Your task to perform on an android device: uninstall "Pinterest" Image 0: 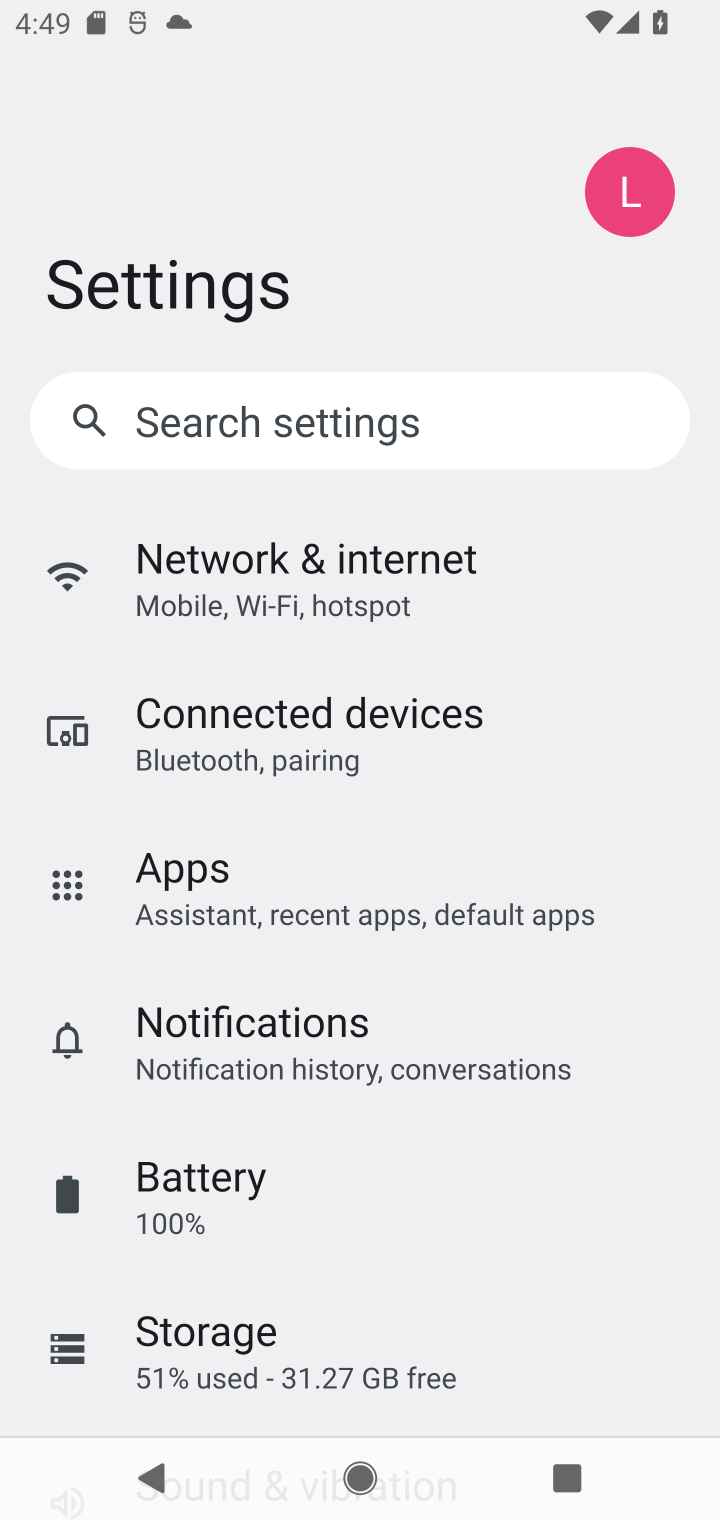
Step 0: press home button
Your task to perform on an android device: uninstall "Pinterest" Image 1: 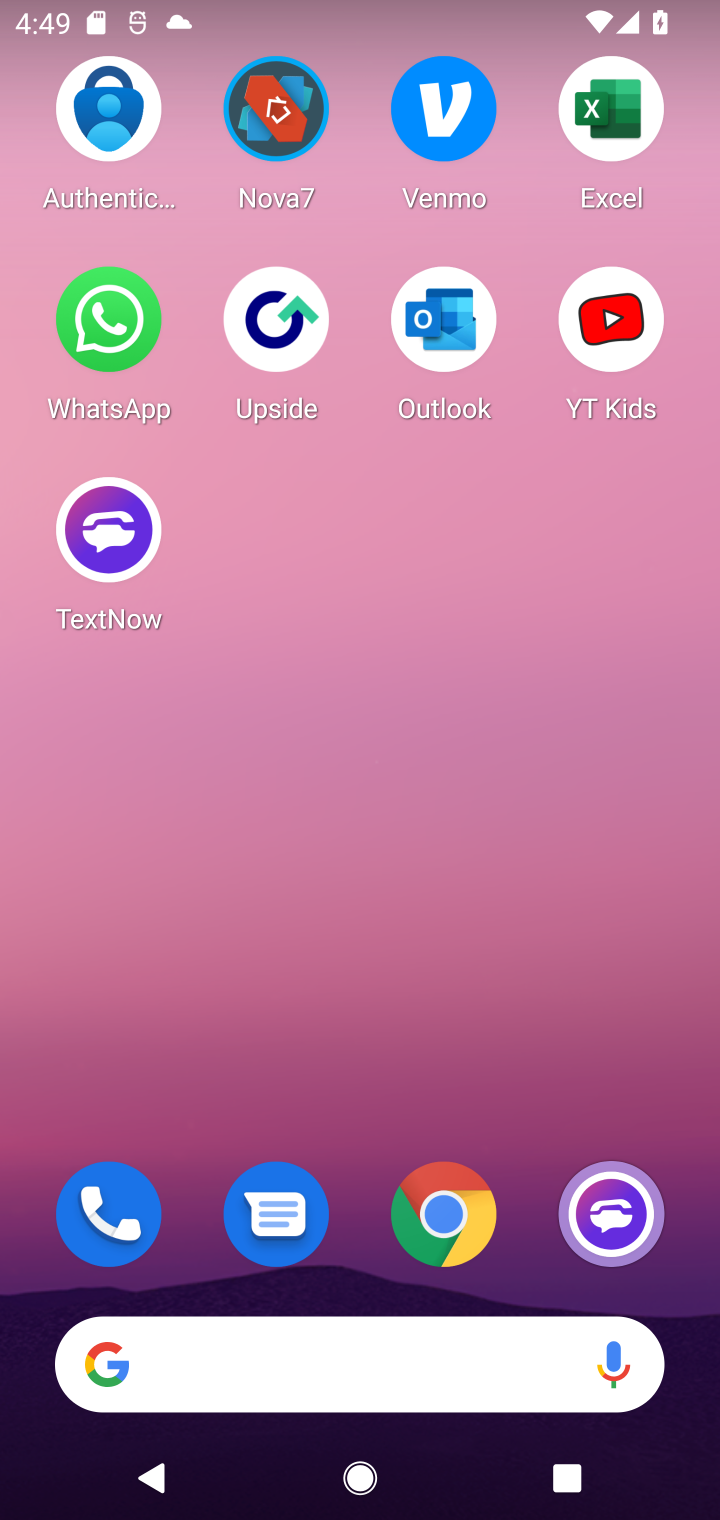
Step 1: drag from (361, 1159) to (347, 237)
Your task to perform on an android device: uninstall "Pinterest" Image 2: 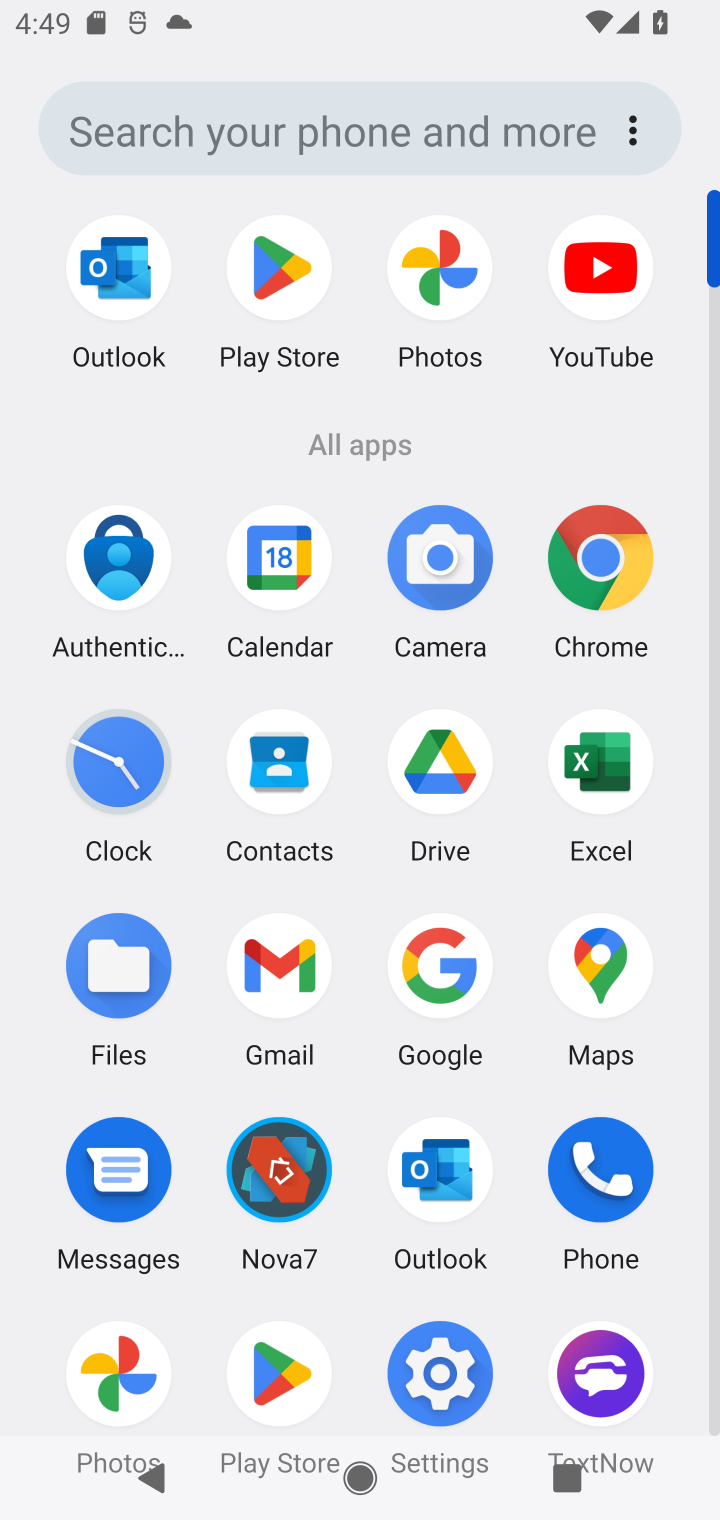
Step 2: click (281, 305)
Your task to perform on an android device: uninstall "Pinterest" Image 3: 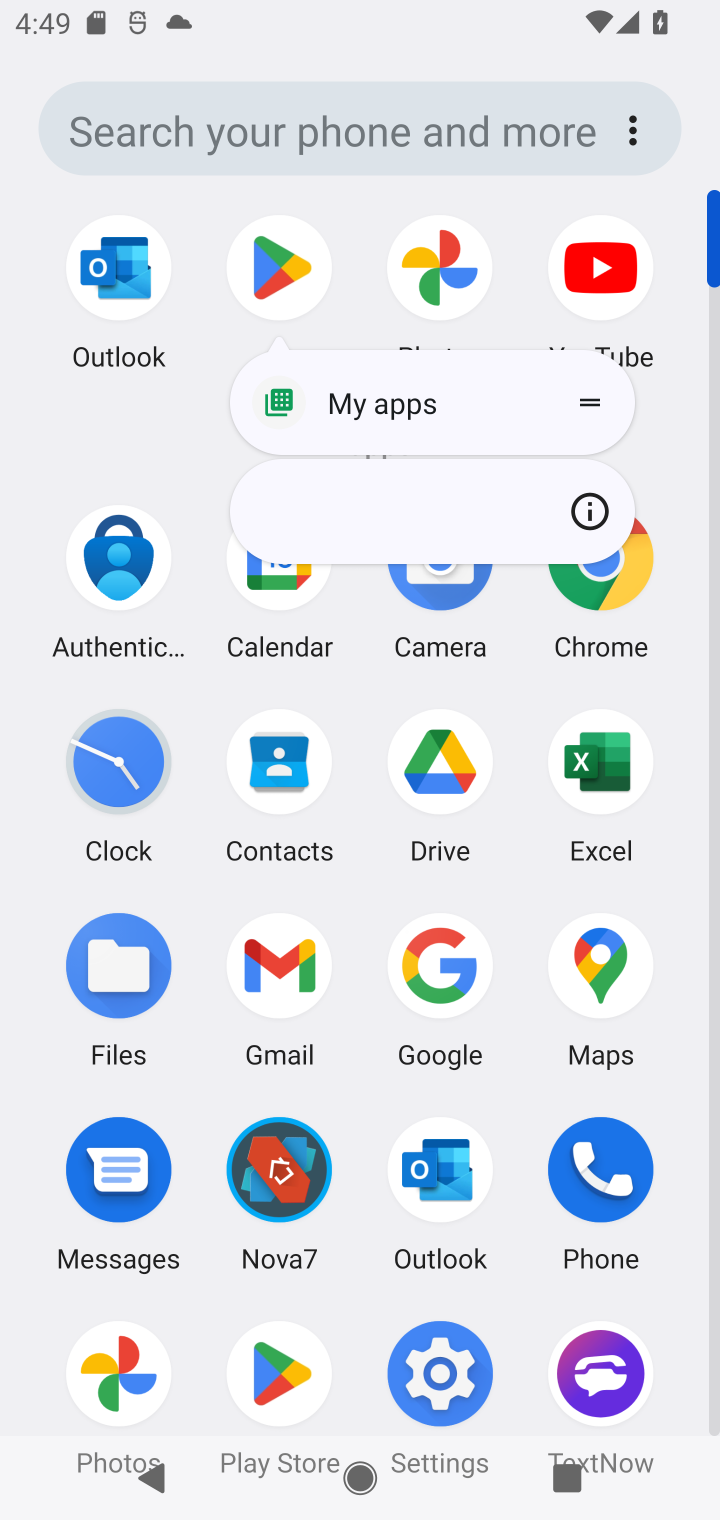
Step 3: click (283, 303)
Your task to perform on an android device: uninstall "Pinterest" Image 4: 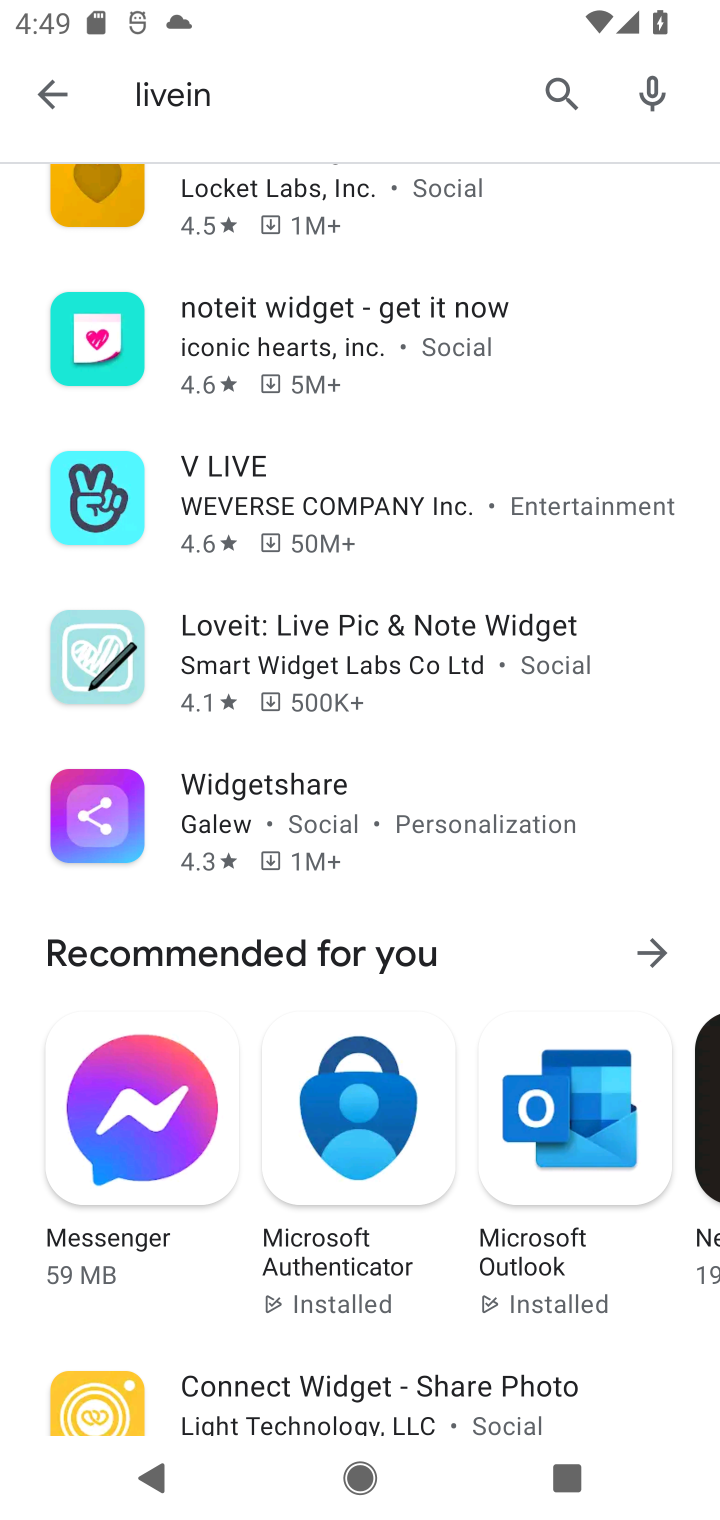
Step 4: click (305, 94)
Your task to perform on an android device: uninstall "Pinterest" Image 5: 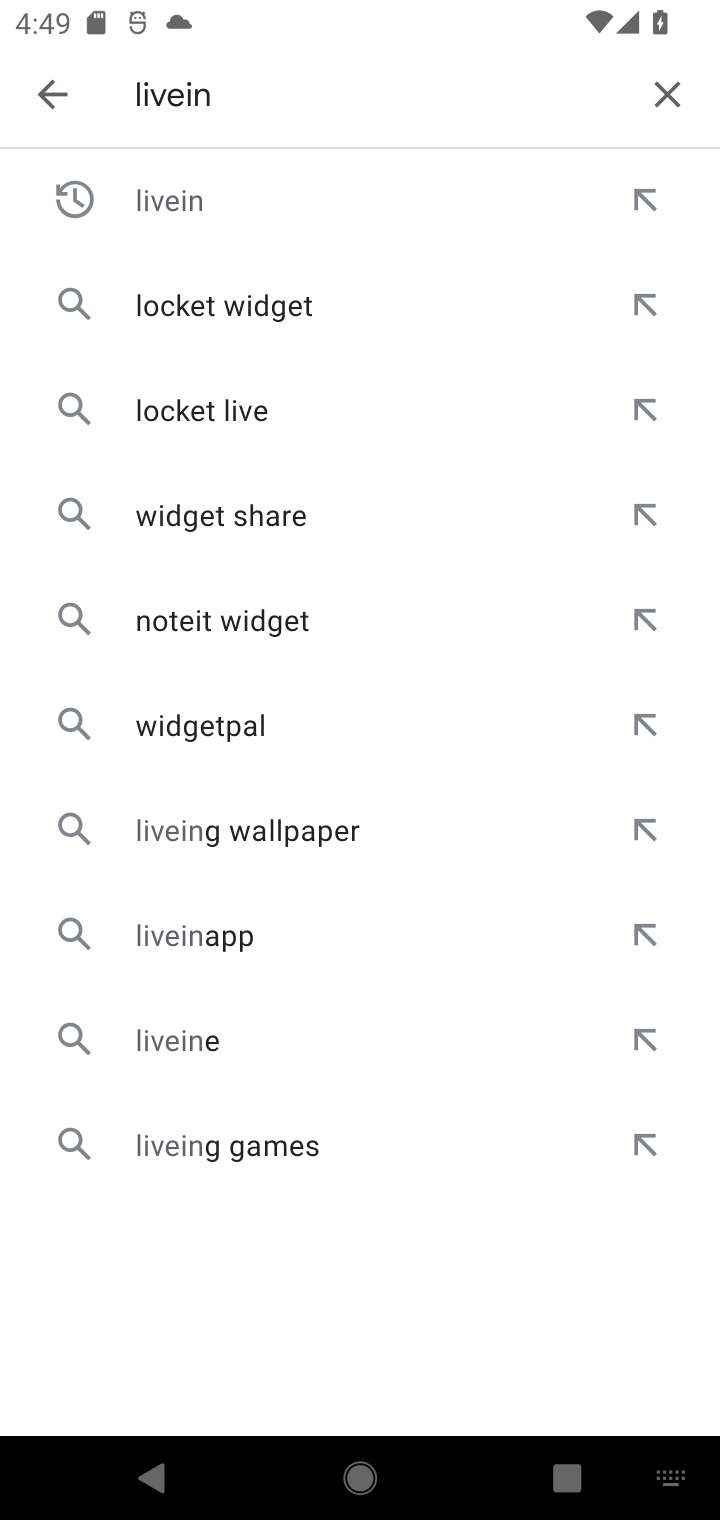
Step 5: click (675, 83)
Your task to perform on an android device: uninstall "Pinterest" Image 6: 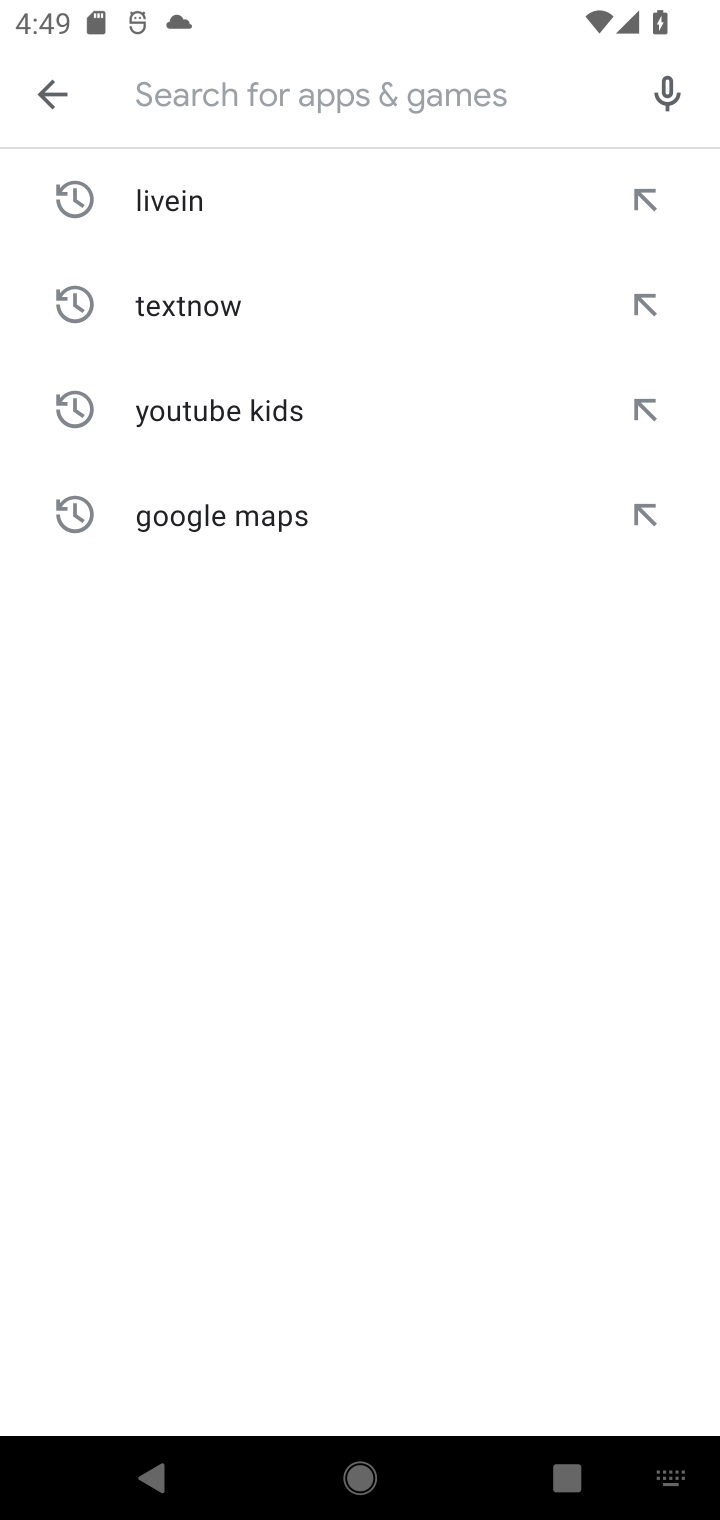
Step 6: type "Pinterest"
Your task to perform on an android device: uninstall "Pinterest" Image 7: 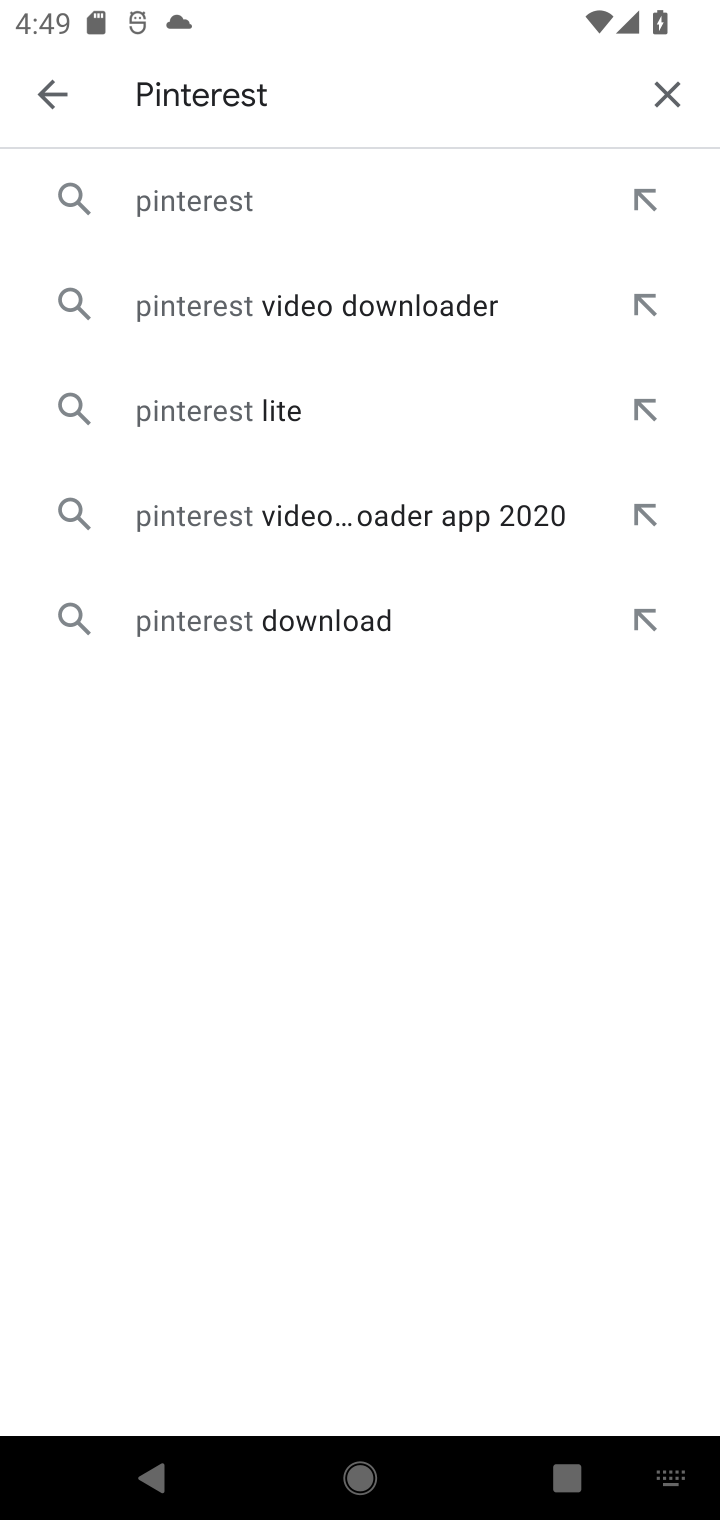
Step 7: click (188, 206)
Your task to perform on an android device: uninstall "Pinterest" Image 8: 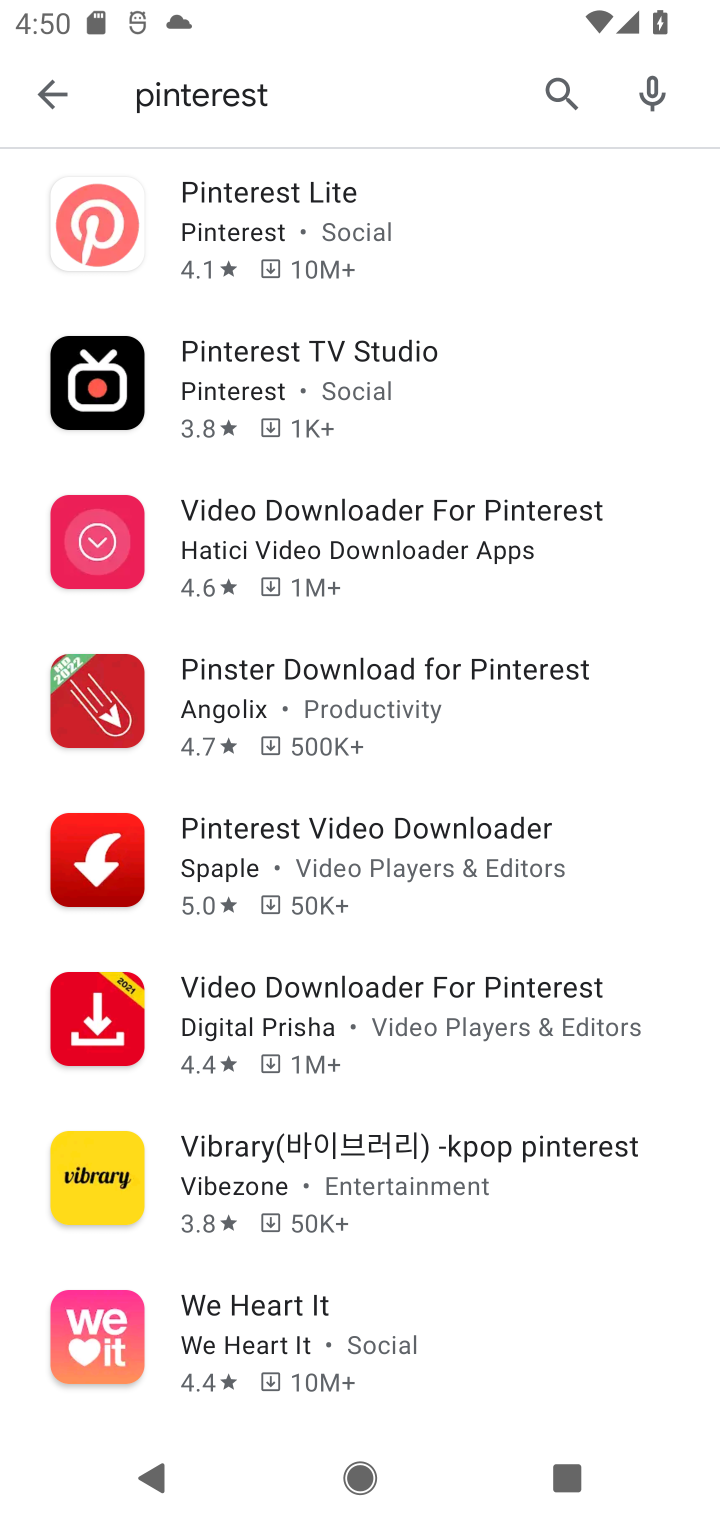
Step 8: click (303, 791)
Your task to perform on an android device: uninstall "Pinterest" Image 9: 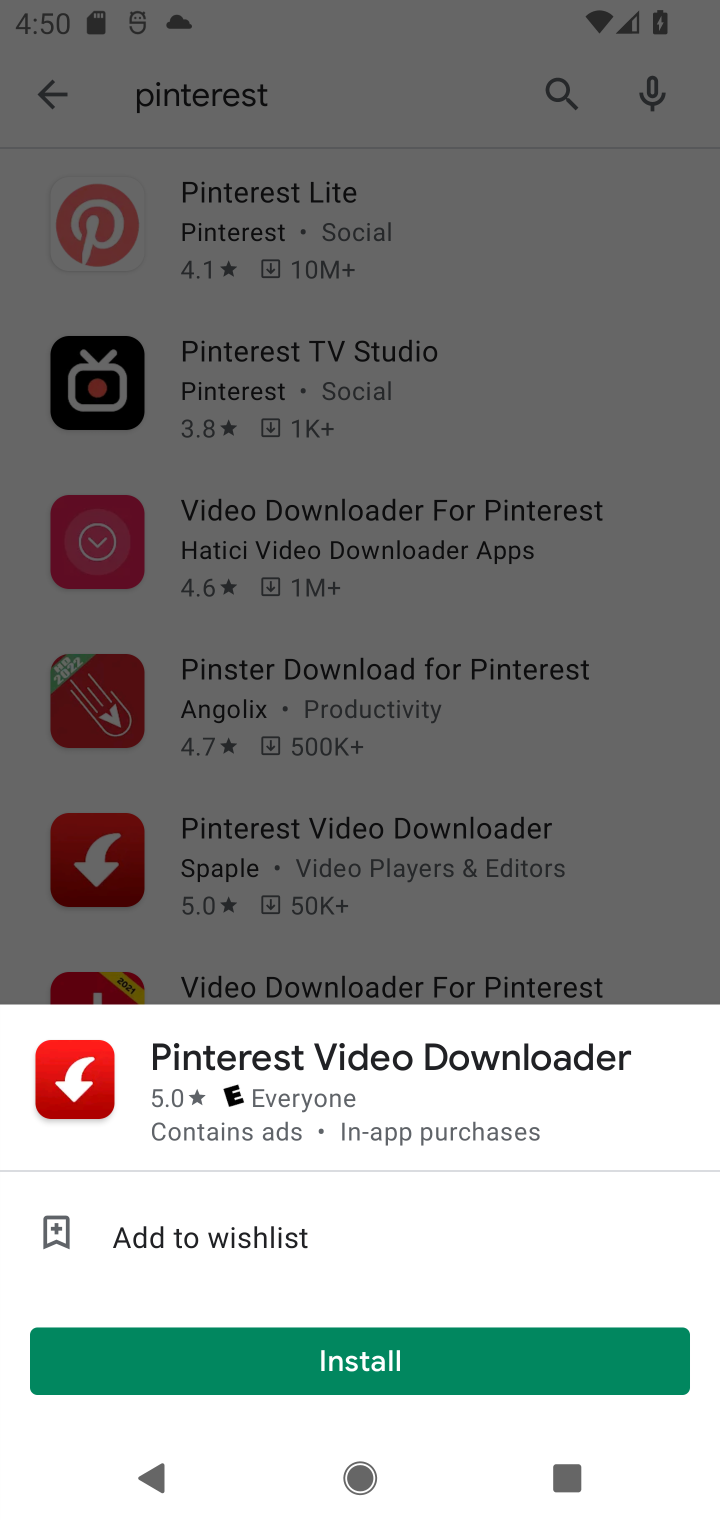
Step 9: task complete